Your task to perform on an android device: Go to Google maps Image 0: 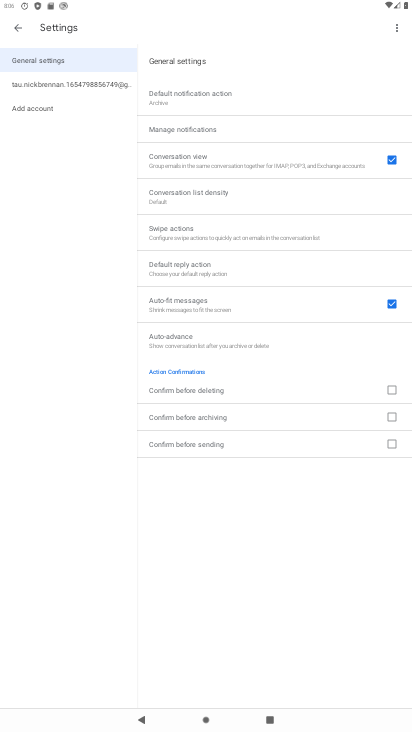
Step 0: press home button
Your task to perform on an android device: Go to Google maps Image 1: 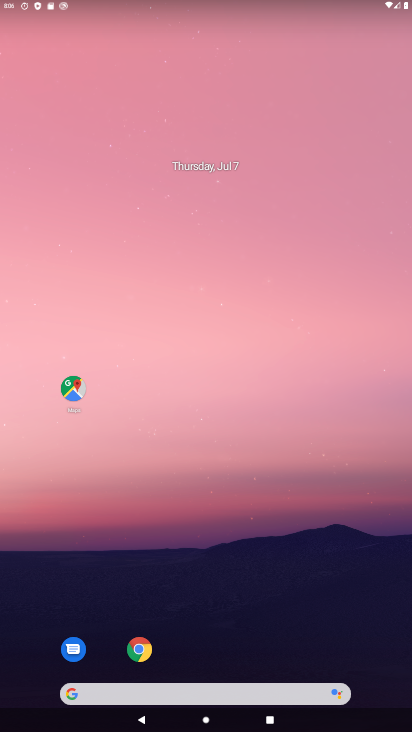
Step 1: drag from (231, 629) to (267, 192)
Your task to perform on an android device: Go to Google maps Image 2: 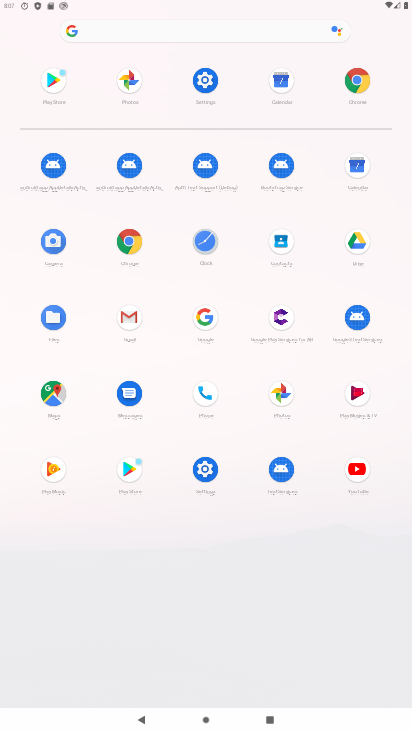
Step 2: click (54, 388)
Your task to perform on an android device: Go to Google maps Image 3: 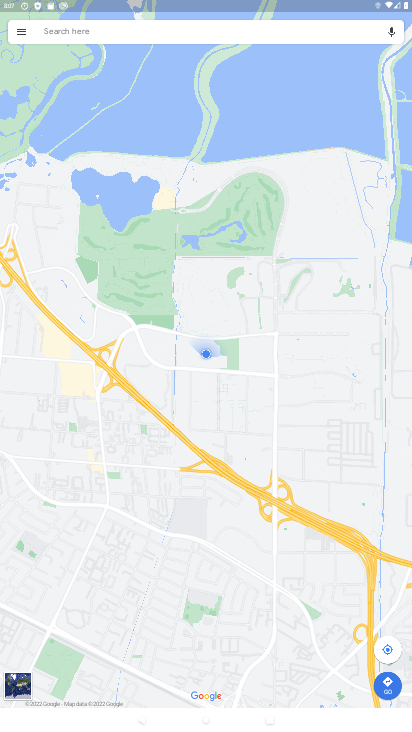
Step 3: task complete